Your task to perform on an android device: Open privacy settings Image 0: 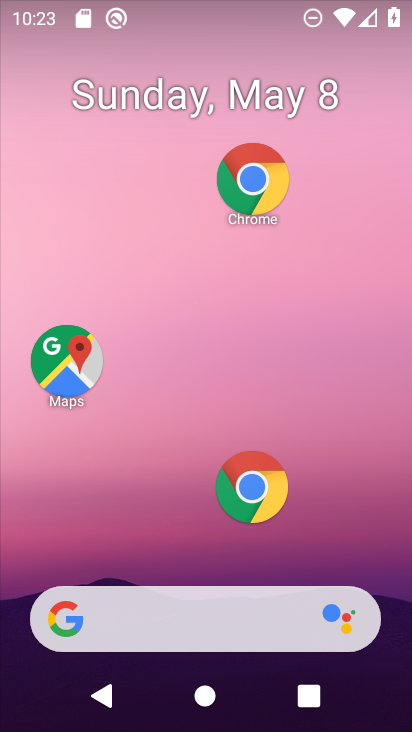
Step 0: drag from (171, 553) to (235, 24)
Your task to perform on an android device: Open privacy settings Image 1: 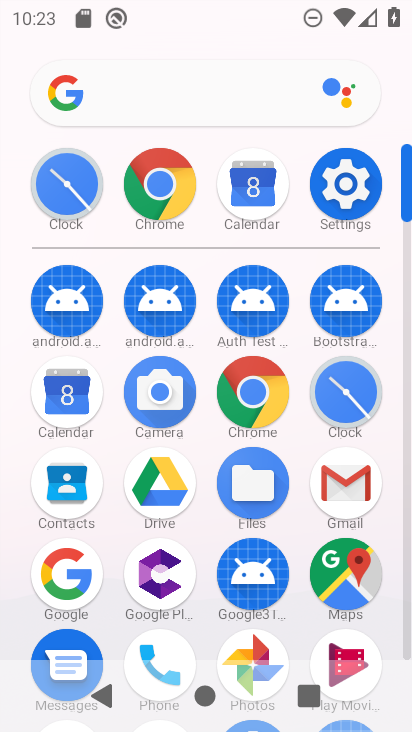
Step 1: click (341, 178)
Your task to perform on an android device: Open privacy settings Image 2: 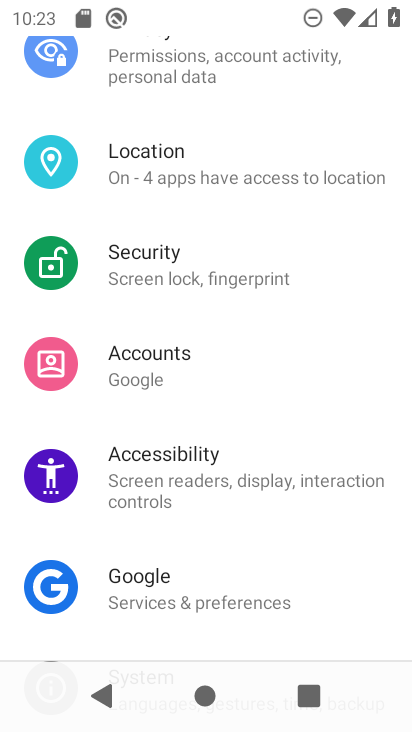
Step 2: drag from (248, 520) to (295, 617)
Your task to perform on an android device: Open privacy settings Image 3: 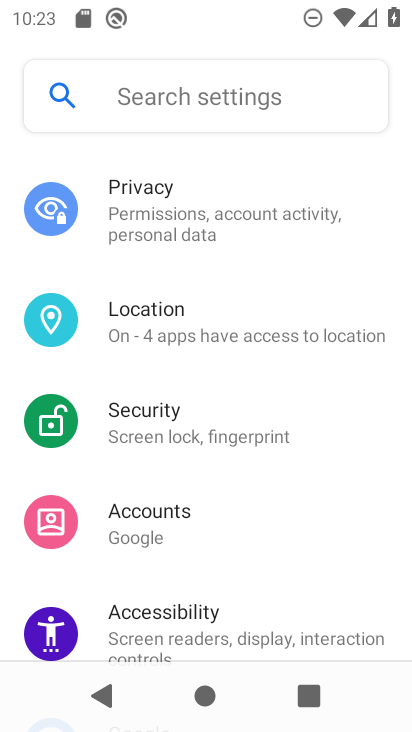
Step 3: click (244, 201)
Your task to perform on an android device: Open privacy settings Image 4: 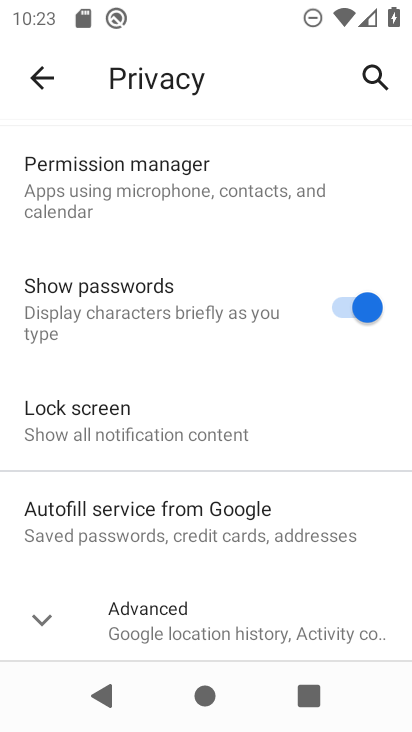
Step 4: task complete